Your task to perform on an android device: What is the news today? Image 0: 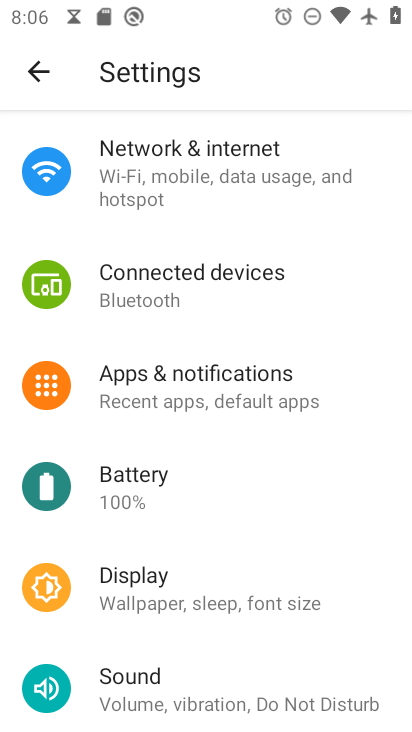
Step 0: press home button
Your task to perform on an android device: What is the news today? Image 1: 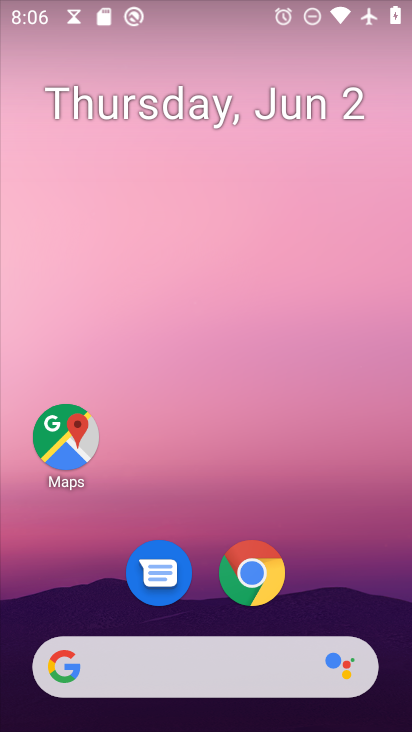
Step 1: click (69, 665)
Your task to perform on an android device: What is the news today? Image 2: 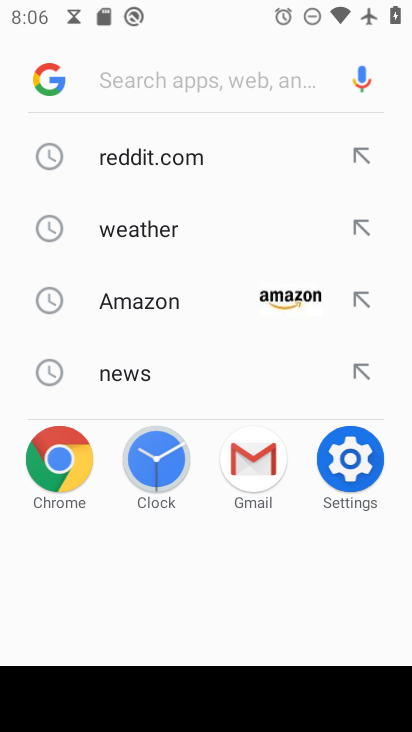
Step 2: click (130, 369)
Your task to perform on an android device: What is the news today? Image 3: 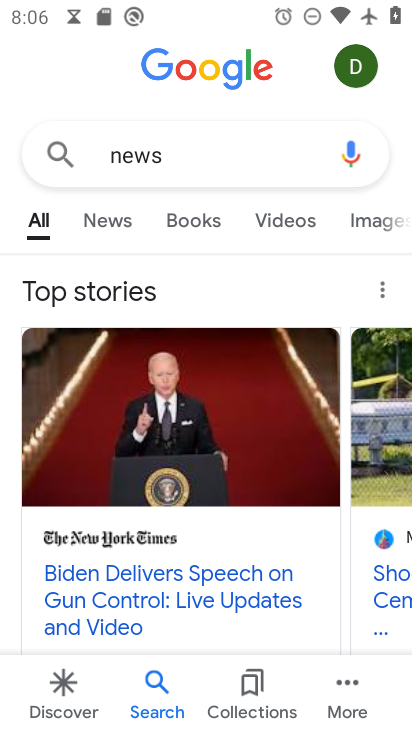
Step 3: click (113, 213)
Your task to perform on an android device: What is the news today? Image 4: 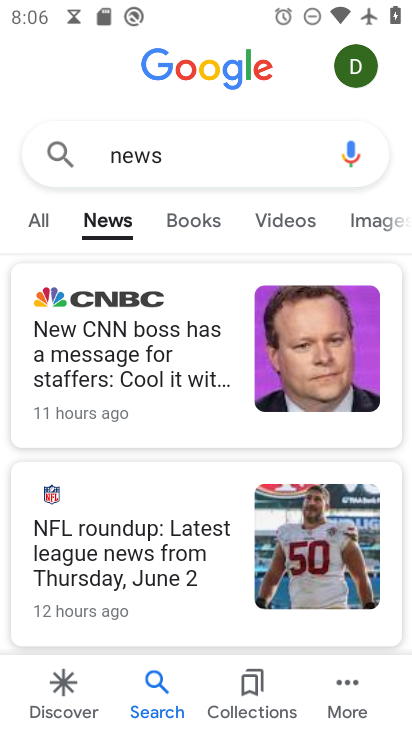
Step 4: task complete